Your task to perform on an android device: turn on bluetooth scan Image 0: 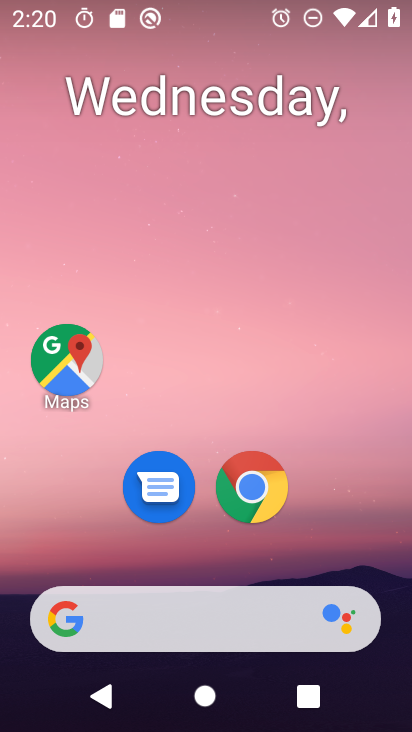
Step 0: drag from (189, 571) to (288, 19)
Your task to perform on an android device: turn on bluetooth scan Image 1: 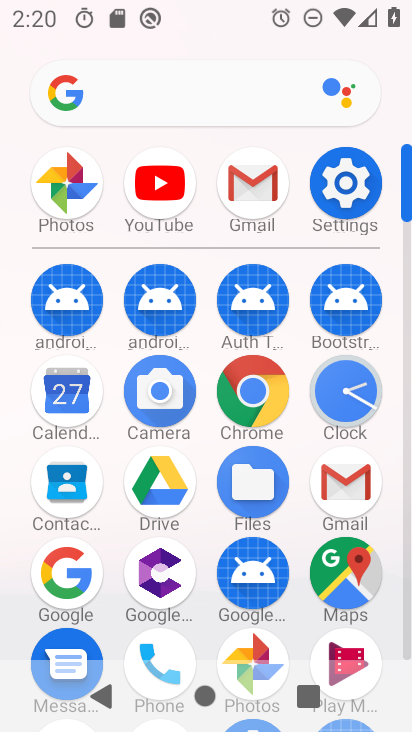
Step 1: click (340, 172)
Your task to perform on an android device: turn on bluetooth scan Image 2: 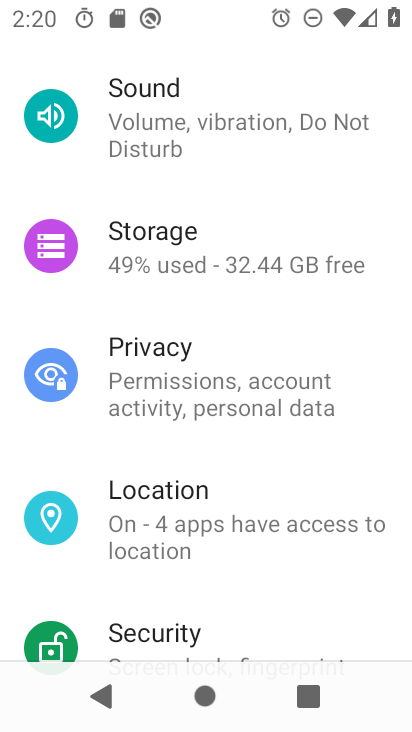
Step 2: drag from (323, 167) to (265, 682)
Your task to perform on an android device: turn on bluetooth scan Image 3: 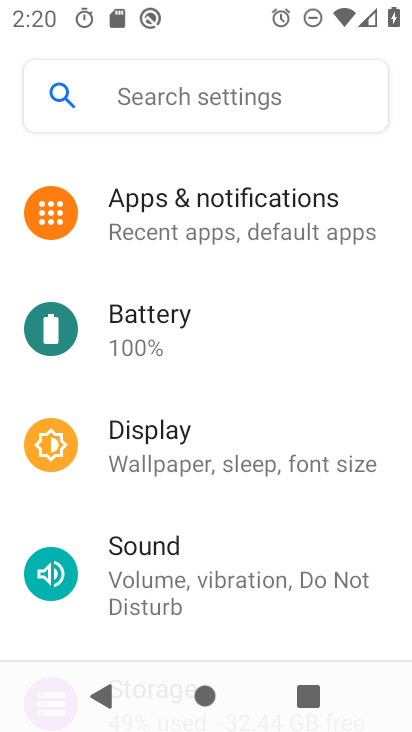
Step 3: drag from (249, 299) to (259, 641)
Your task to perform on an android device: turn on bluetooth scan Image 4: 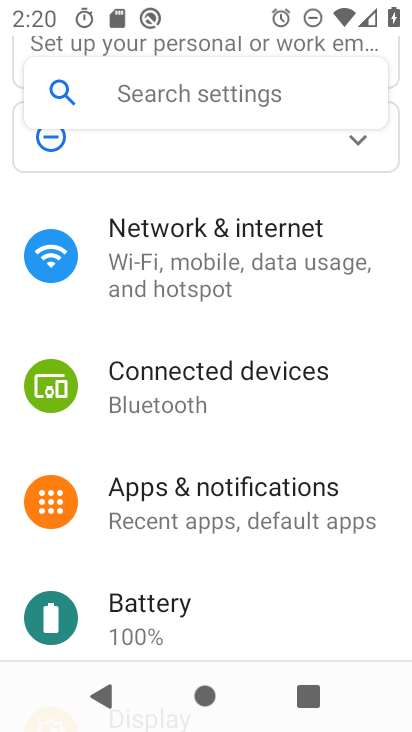
Step 4: click (175, 370)
Your task to perform on an android device: turn on bluetooth scan Image 5: 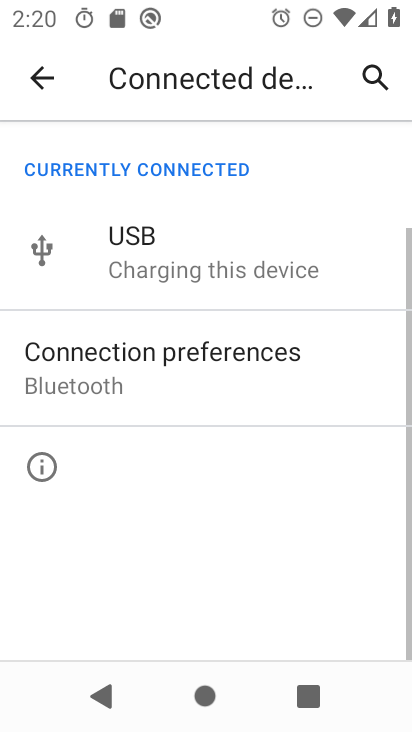
Step 5: click (103, 379)
Your task to perform on an android device: turn on bluetooth scan Image 6: 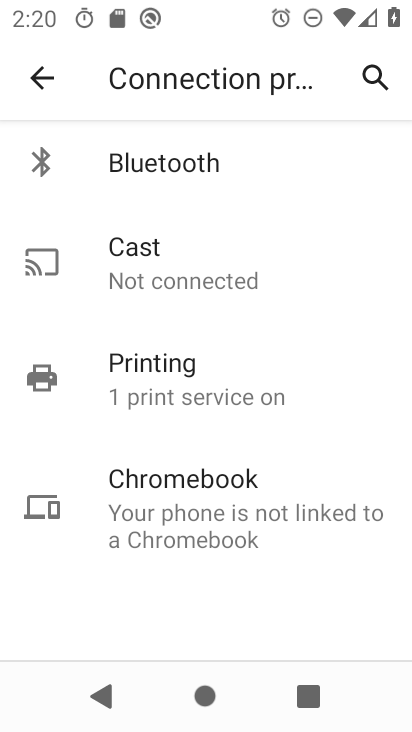
Step 6: click (181, 170)
Your task to perform on an android device: turn on bluetooth scan Image 7: 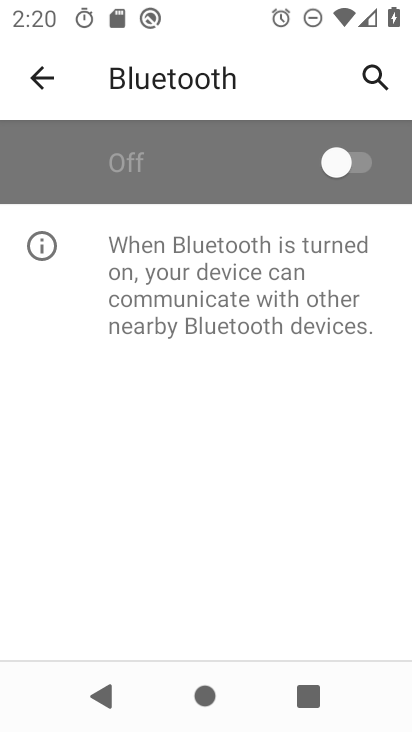
Step 7: click (343, 168)
Your task to perform on an android device: turn on bluetooth scan Image 8: 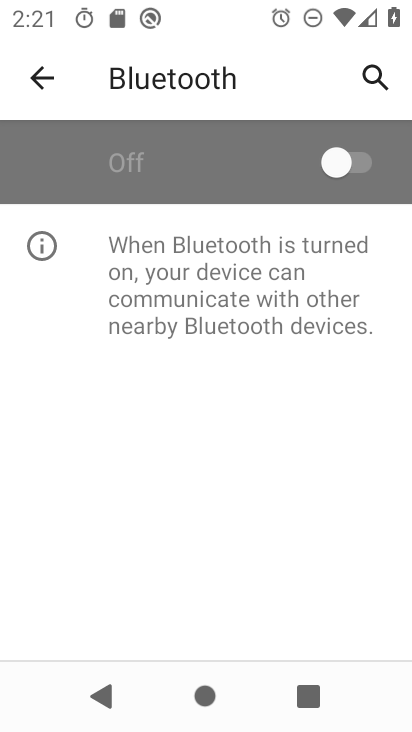
Step 8: task complete